Your task to perform on an android device: turn off data saver in the chrome app Image 0: 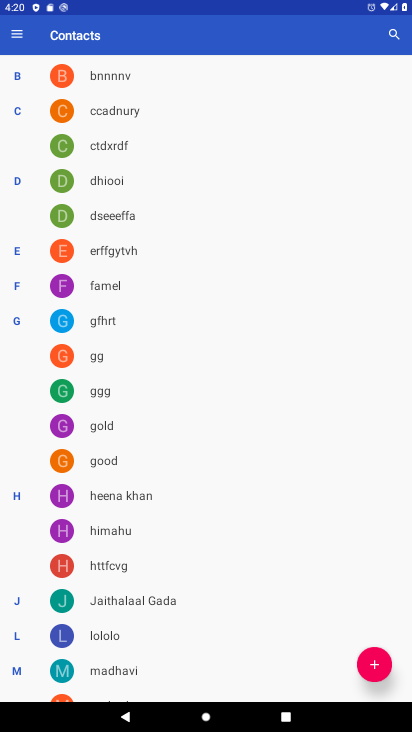
Step 0: press home button
Your task to perform on an android device: turn off data saver in the chrome app Image 1: 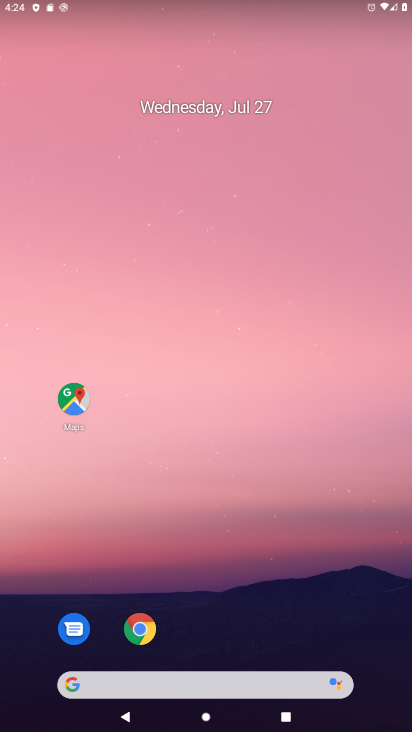
Step 1: drag from (228, 616) to (337, 9)
Your task to perform on an android device: turn off data saver in the chrome app Image 2: 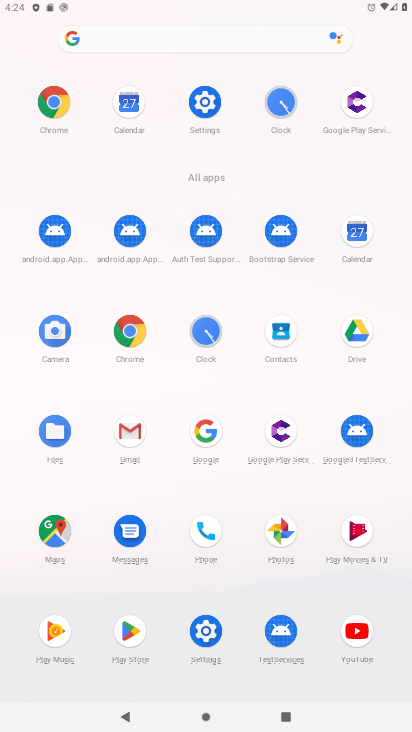
Step 2: click (61, 103)
Your task to perform on an android device: turn off data saver in the chrome app Image 3: 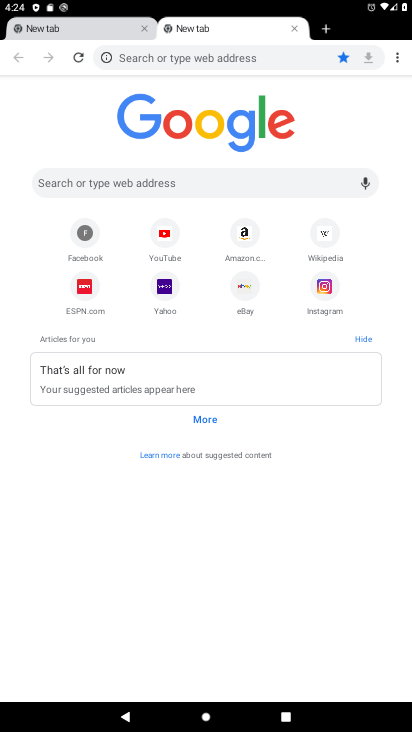
Step 3: drag from (401, 51) to (280, 271)
Your task to perform on an android device: turn off data saver in the chrome app Image 4: 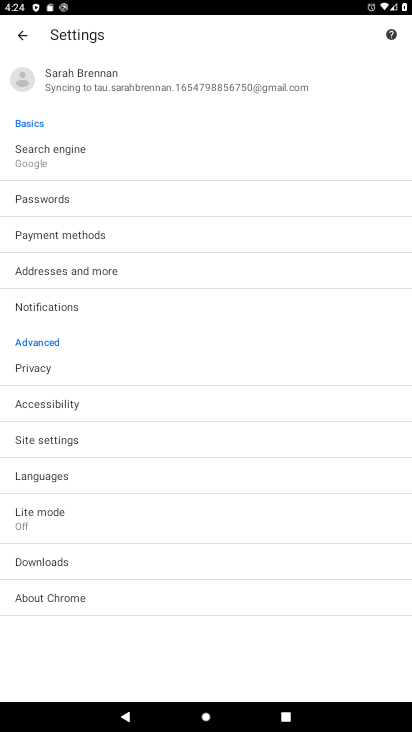
Step 4: click (65, 518)
Your task to perform on an android device: turn off data saver in the chrome app Image 5: 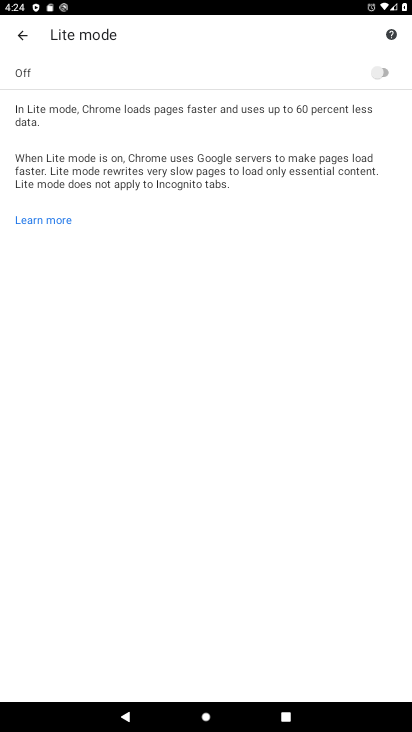
Step 5: task complete